Your task to perform on an android device: choose inbox layout in the gmail app Image 0: 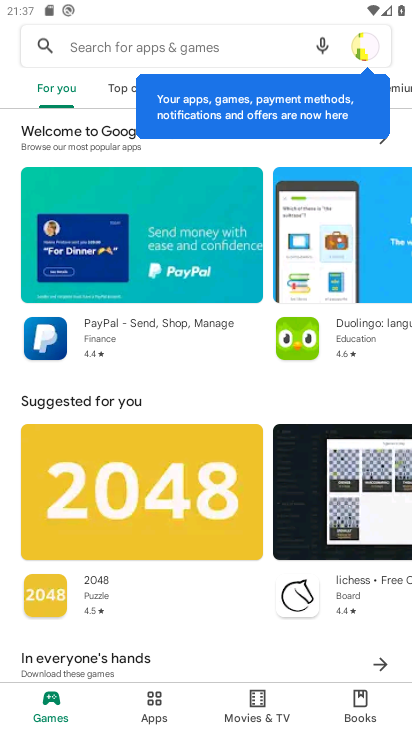
Step 0: press home button
Your task to perform on an android device: choose inbox layout in the gmail app Image 1: 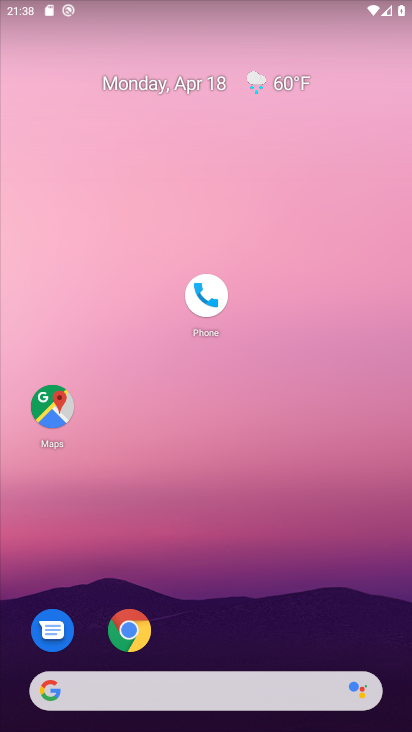
Step 1: drag from (253, 636) to (333, 164)
Your task to perform on an android device: choose inbox layout in the gmail app Image 2: 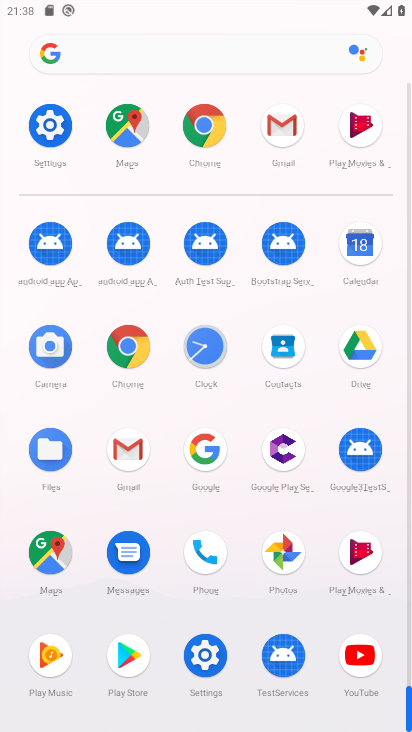
Step 2: click (272, 127)
Your task to perform on an android device: choose inbox layout in the gmail app Image 3: 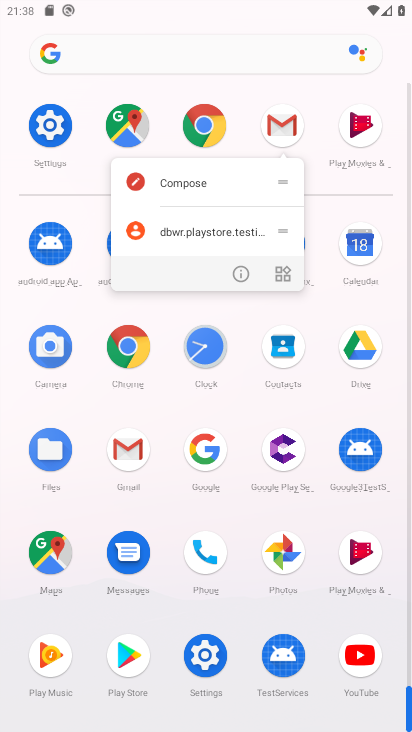
Step 3: click (272, 127)
Your task to perform on an android device: choose inbox layout in the gmail app Image 4: 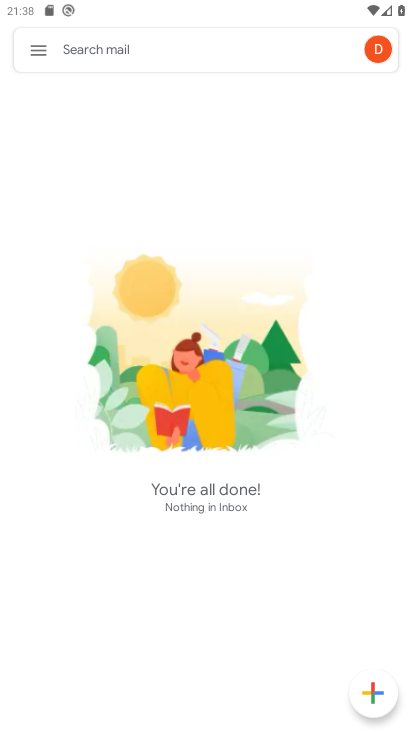
Step 4: click (42, 52)
Your task to perform on an android device: choose inbox layout in the gmail app Image 5: 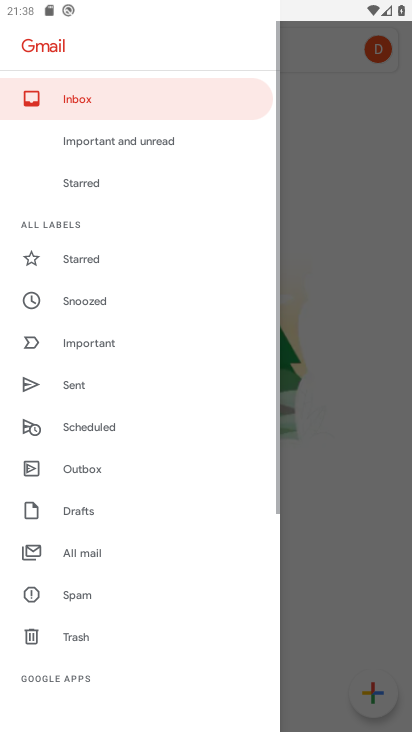
Step 5: drag from (75, 506) to (213, 135)
Your task to perform on an android device: choose inbox layout in the gmail app Image 6: 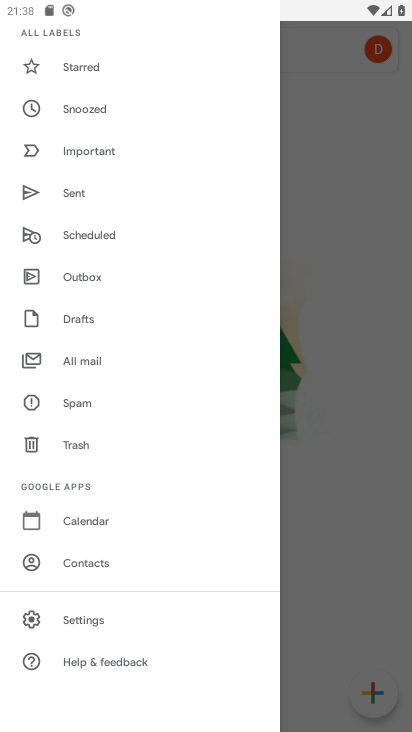
Step 6: click (78, 615)
Your task to perform on an android device: choose inbox layout in the gmail app Image 7: 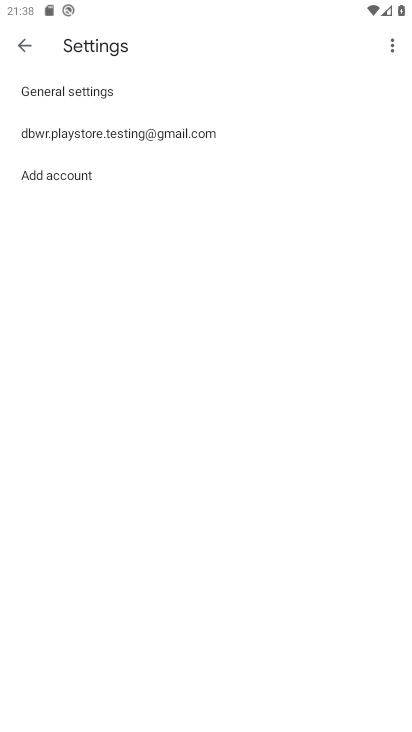
Step 7: click (128, 139)
Your task to perform on an android device: choose inbox layout in the gmail app Image 8: 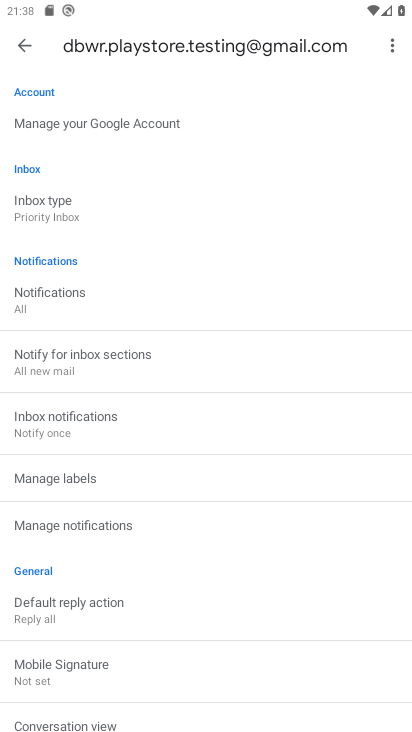
Step 8: click (65, 208)
Your task to perform on an android device: choose inbox layout in the gmail app Image 9: 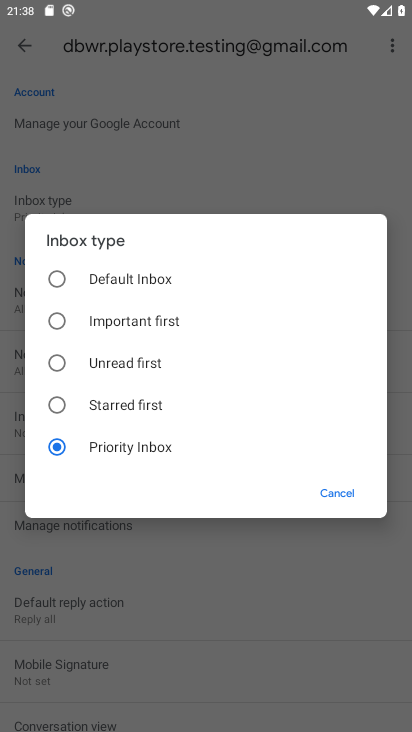
Step 9: task complete